Your task to perform on an android device: Toggle the flashlight Image 0: 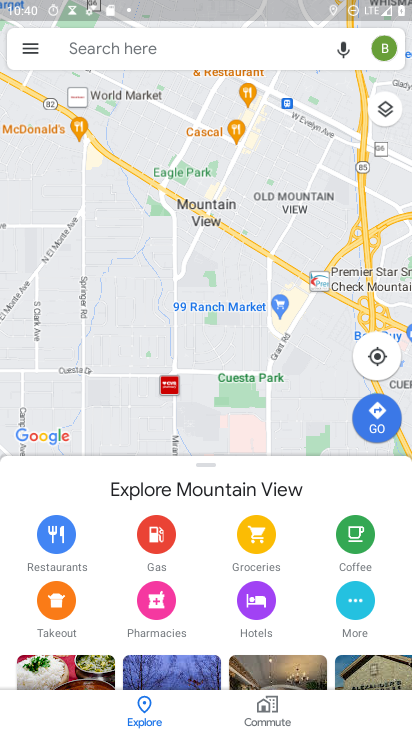
Step 0: press home button
Your task to perform on an android device: Toggle the flashlight Image 1: 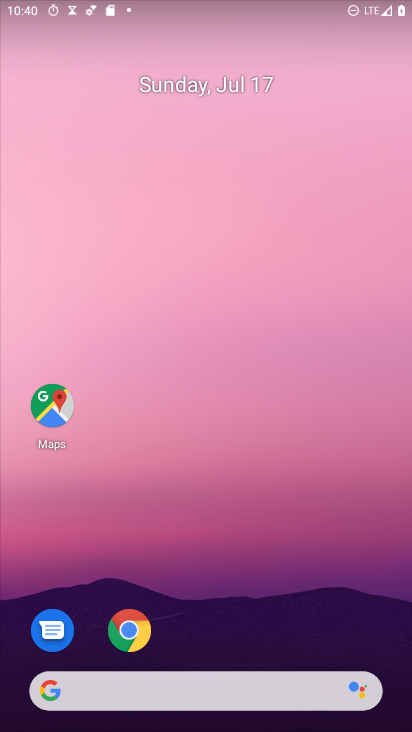
Step 1: task complete